Your task to perform on an android device: Go to Amazon Image 0: 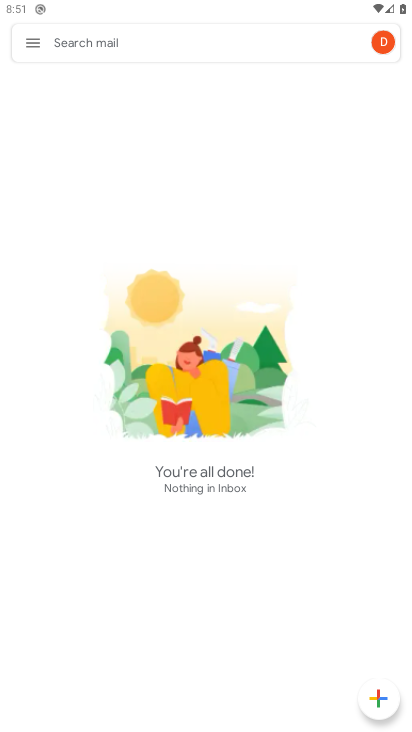
Step 0: press home button
Your task to perform on an android device: Go to Amazon Image 1: 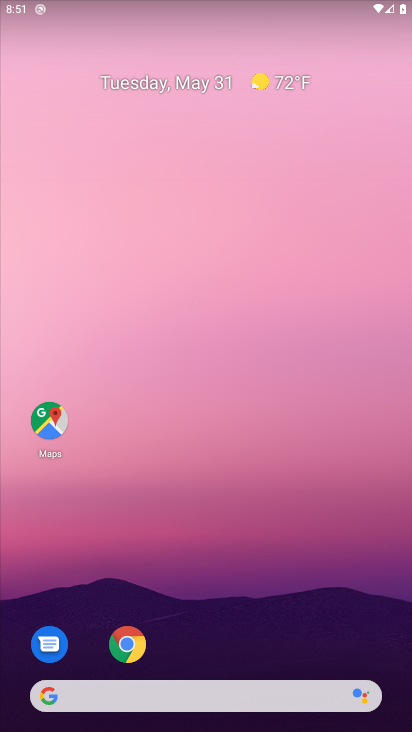
Step 1: click (125, 638)
Your task to perform on an android device: Go to Amazon Image 2: 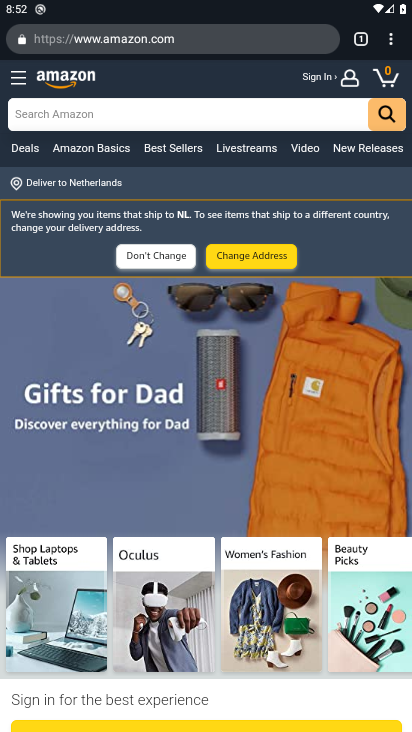
Step 2: task complete